Your task to perform on an android device: turn off picture-in-picture Image 0: 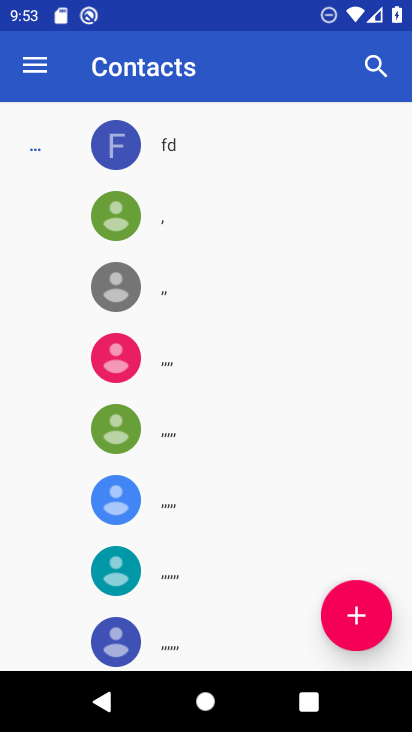
Step 0: press home button
Your task to perform on an android device: turn off picture-in-picture Image 1: 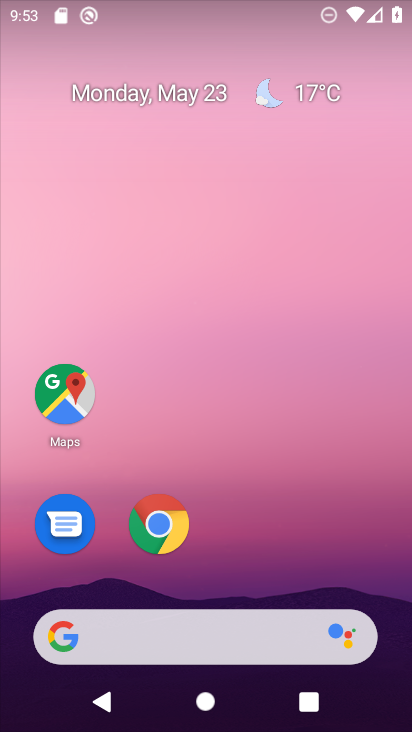
Step 1: click (151, 528)
Your task to perform on an android device: turn off picture-in-picture Image 2: 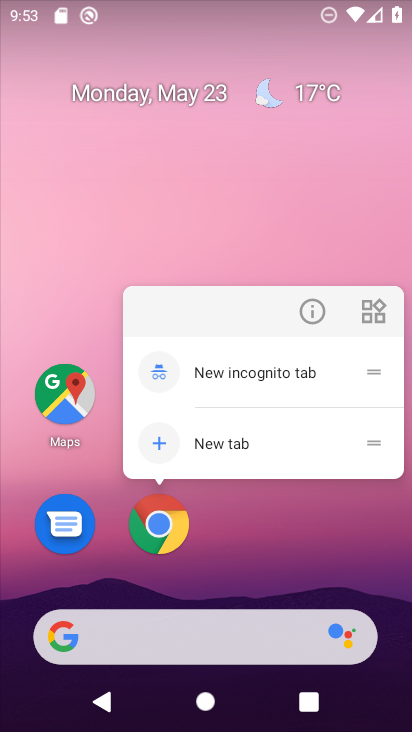
Step 2: click (310, 321)
Your task to perform on an android device: turn off picture-in-picture Image 3: 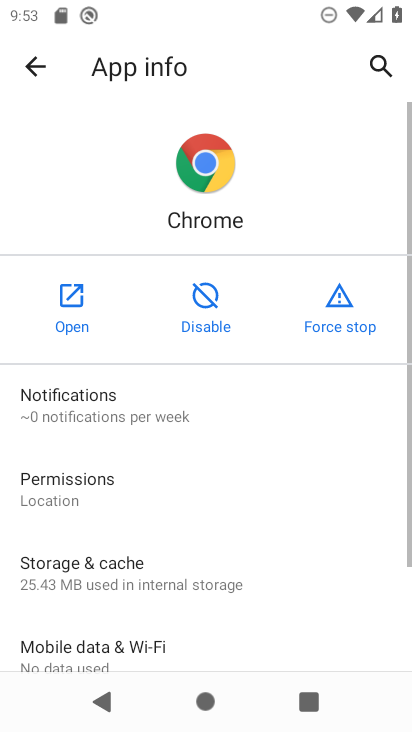
Step 3: drag from (178, 625) to (215, 315)
Your task to perform on an android device: turn off picture-in-picture Image 4: 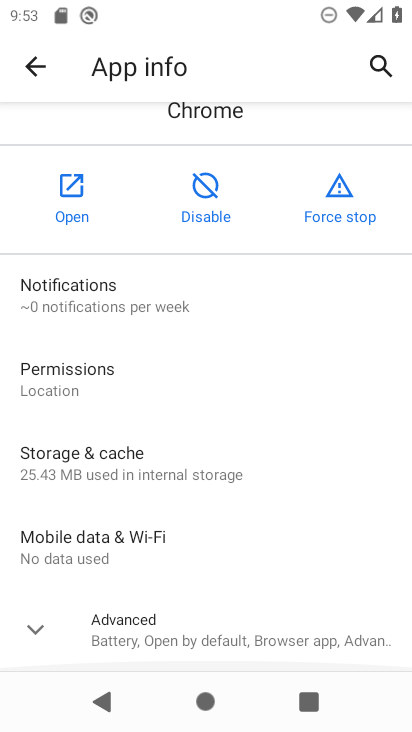
Step 4: drag from (195, 554) to (214, 350)
Your task to perform on an android device: turn off picture-in-picture Image 5: 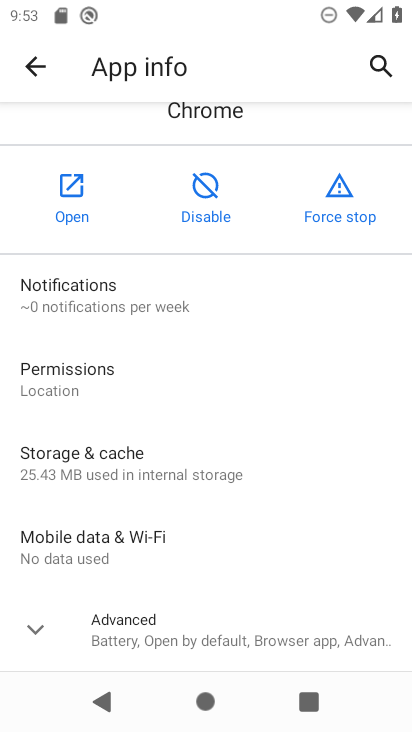
Step 5: drag from (179, 599) to (223, 347)
Your task to perform on an android device: turn off picture-in-picture Image 6: 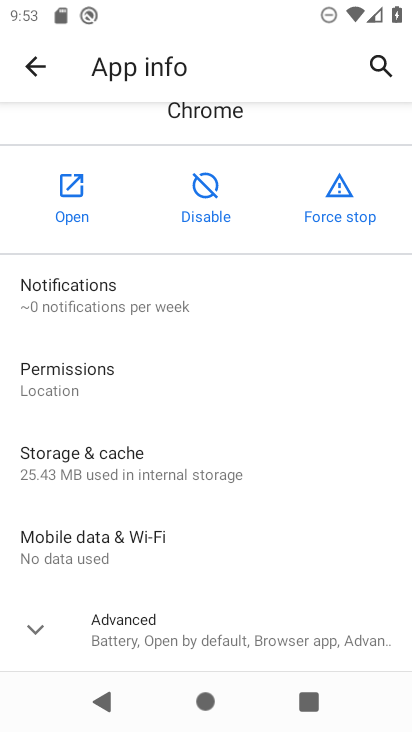
Step 6: click (177, 635)
Your task to perform on an android device: turn off picture-in-picture Image 7: 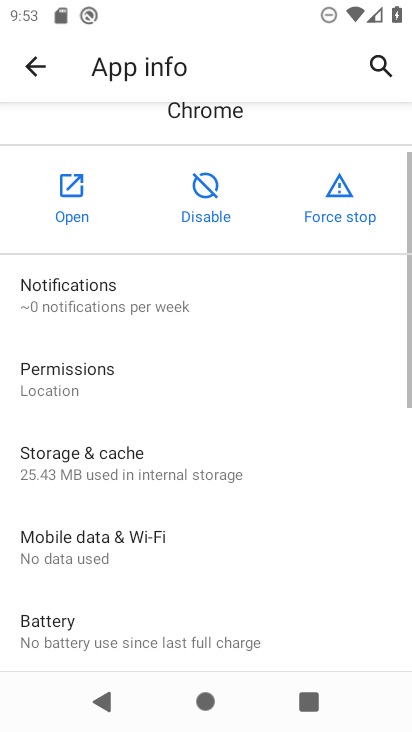
Step 7: drag from (178, 581) to (211, 266)
Your task to perform on an android device: turn off picture-in-picture Image 8: 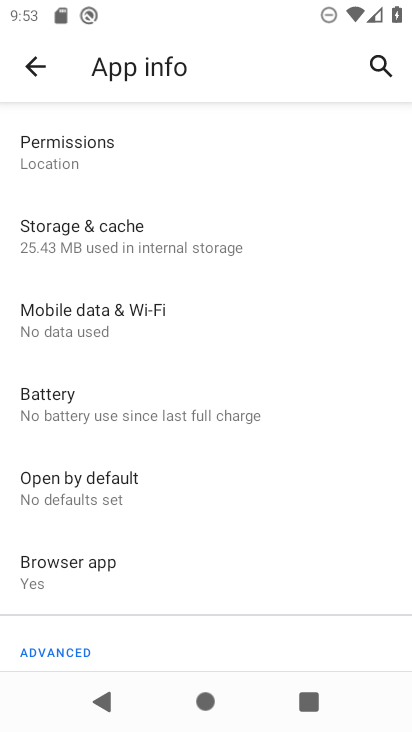
Step 8: drag from (148, 610) to (189, 307)
Your task to perform on an android device: turn off picture-in-picture Image 9: 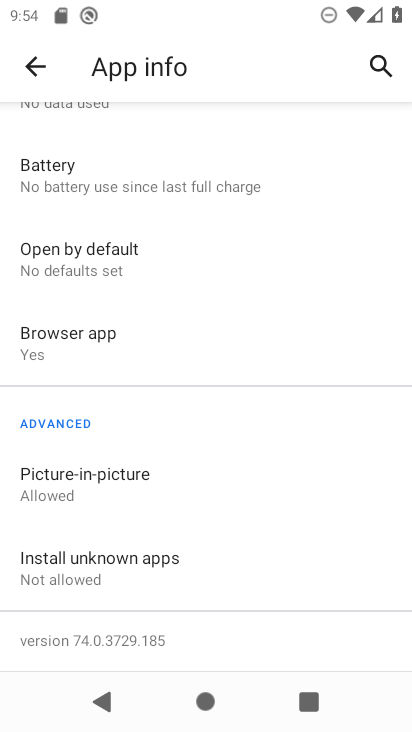
Step 9: click (151, 478)
Your task to perform on an android device: turn off picture-in-picture Image 10: 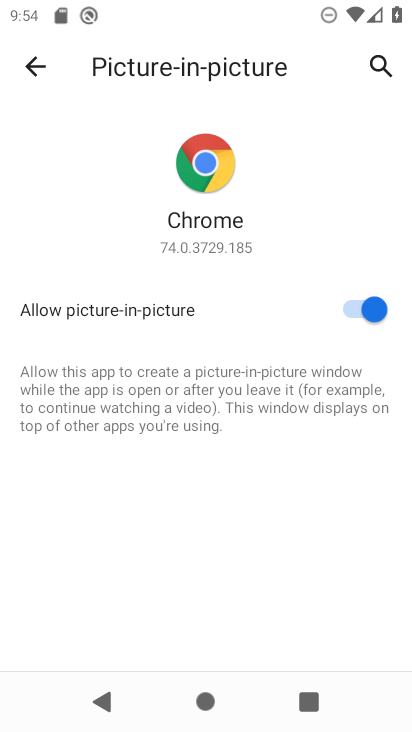
Step 10: click (356, 300)
Your task to perform on an android device: turn off picture-in-picture Image 11: 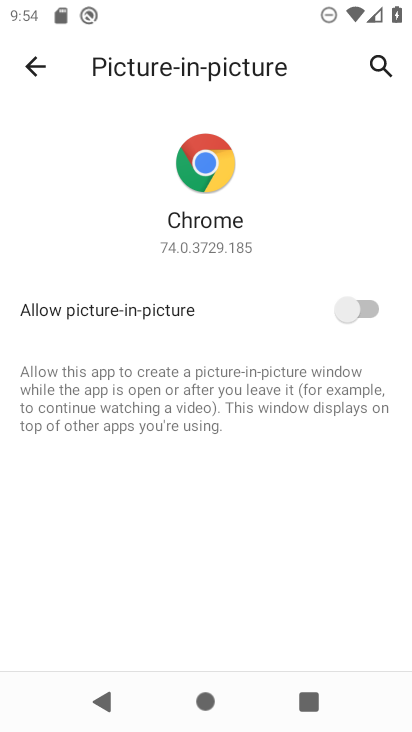
Step 11: task complete